Your task to perform on an android device: set an alarm Image 0: 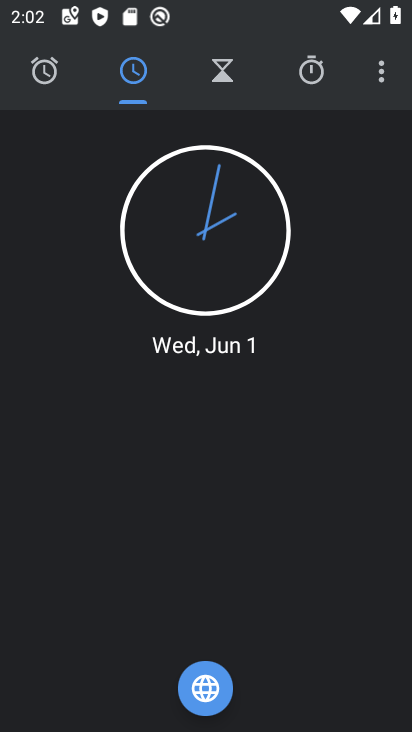
Step 0: click (50, 88)
Your task to perform on an android device: set an alarm Image 1: 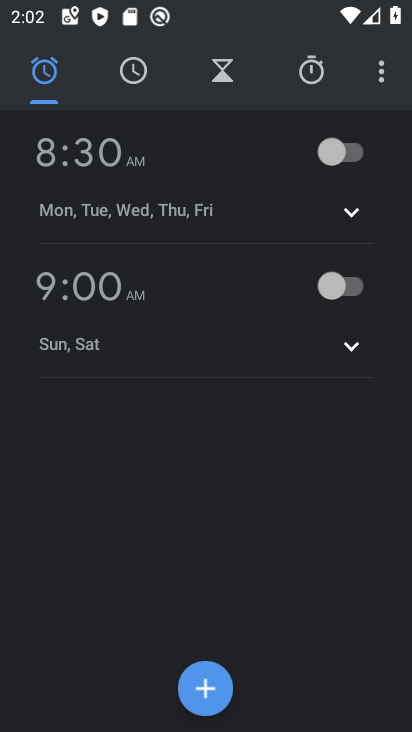
Step 1: click (331, 157)
Your task to perform on an android device: set an alarm Image 2: 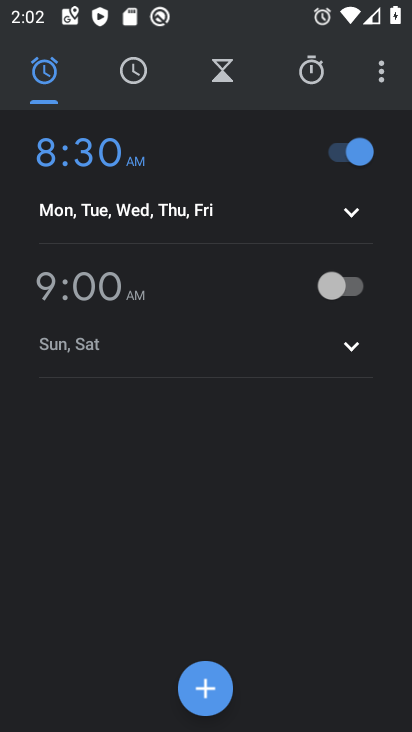
Step 2: task complete